Your task to perform on an android device: open a new tab in the chrome app Image 0: 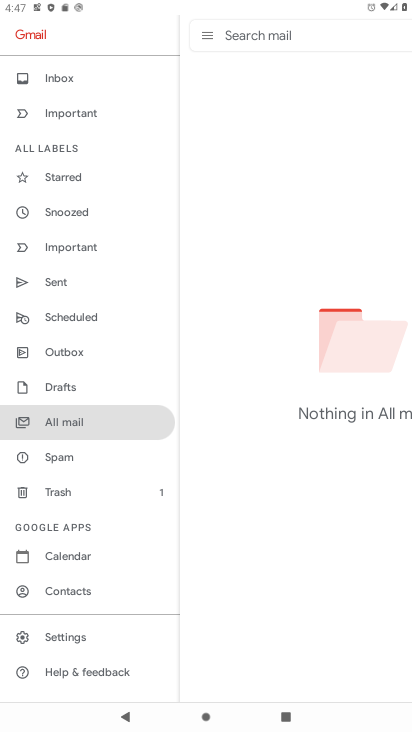
Step 0: press home button
Your task to perform on an android device: open a new tab in the chrome app Image 1: 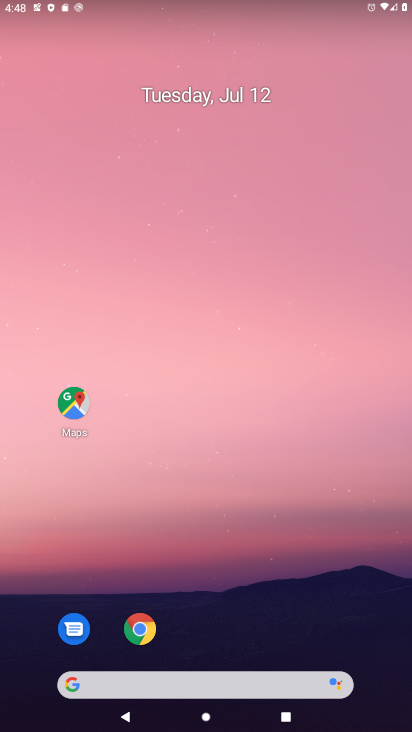
Step 1: drag from (239, 644) to (258, 113)
Your task to perform on an android device: open a new tab in the chrome app Image 2: 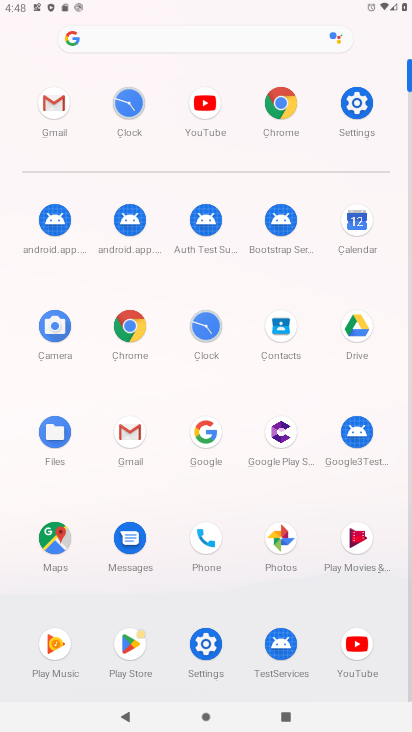
Step 2: click (280, 102)
Your task to perform on an android device: open a new tab in the chrome app Image 3: 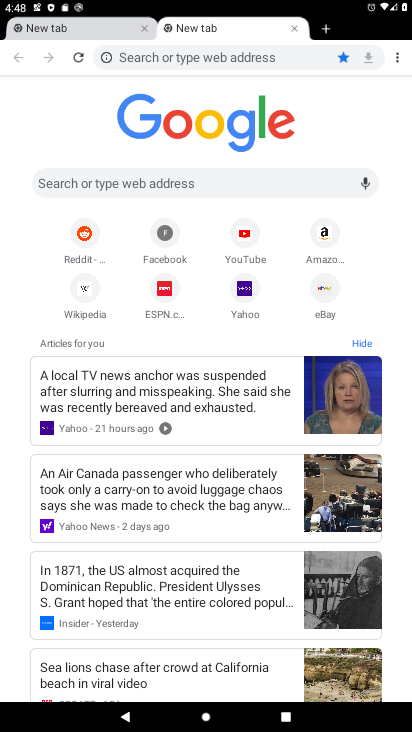
Step 3: click (325, 30)
Your task to perform on an android device: open a new tab in the chrome app Image 4: 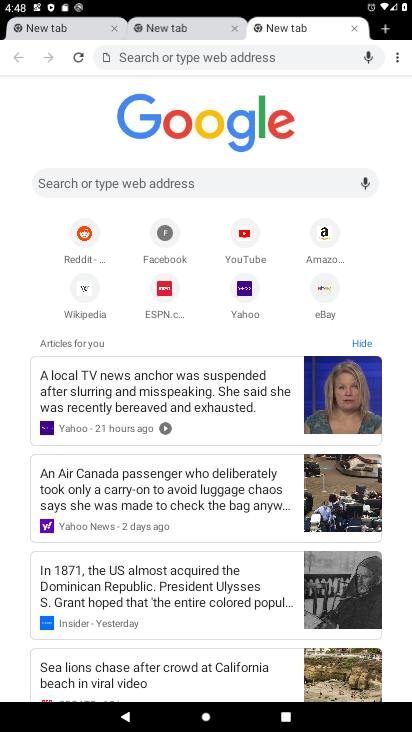
Step 4: task complete